Your task to perform on an android device: What's the weather? Image 0: 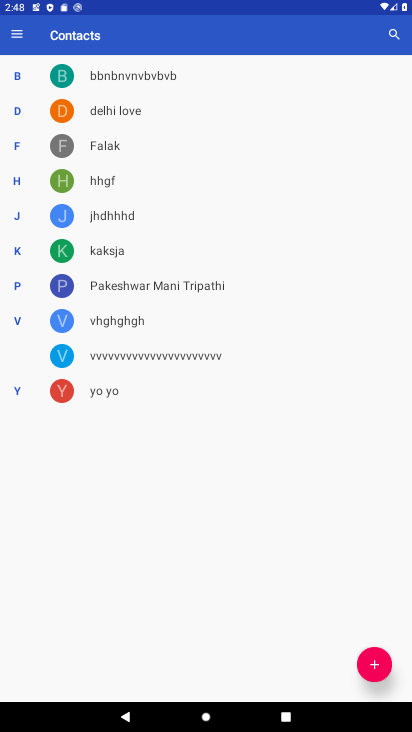
Step 0: press home button
Your task to perform on an android device: What's the weather? Image 1: 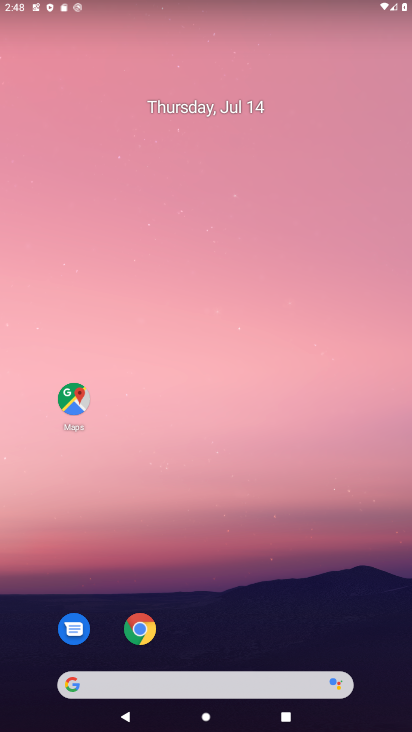
Step 1: click (239, 696)
Your task to perform on an android device: What's the weather? Image 2: 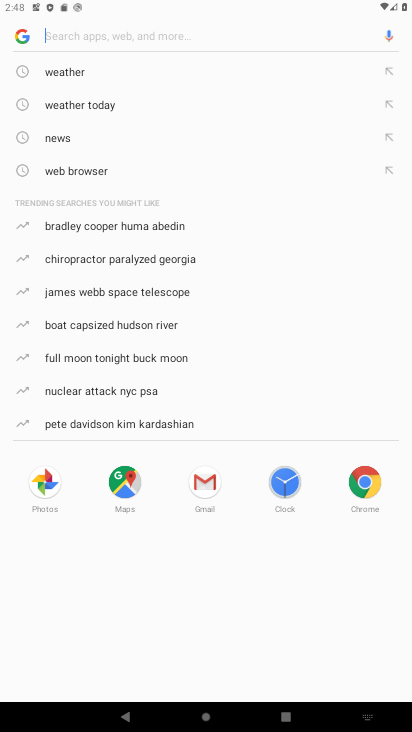
Step 2: type "what's the weather?"
Your task to perform on an android device: What's the weather? Image 3: 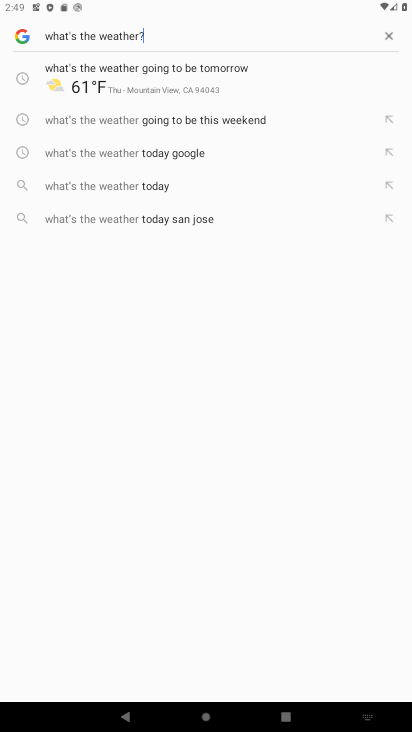
Step 3: click (128, 178)
Your task to perform on an android device: What's the weather? Image 4: 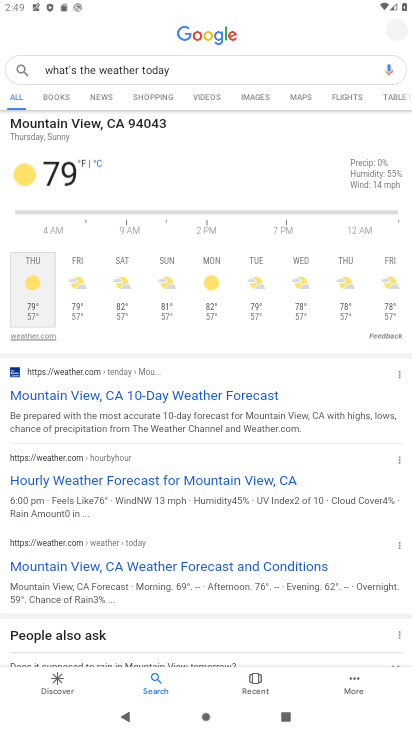
Step 4: click (126, 181)
Your task to perform on an android device: What's the weather? Image 5: 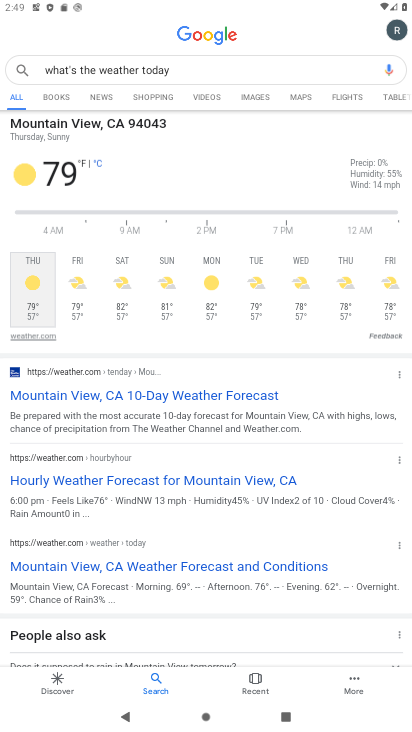
Step 5: task complete